Your task to perform on an android device: turn on the 12-hour format for clock Image 0: 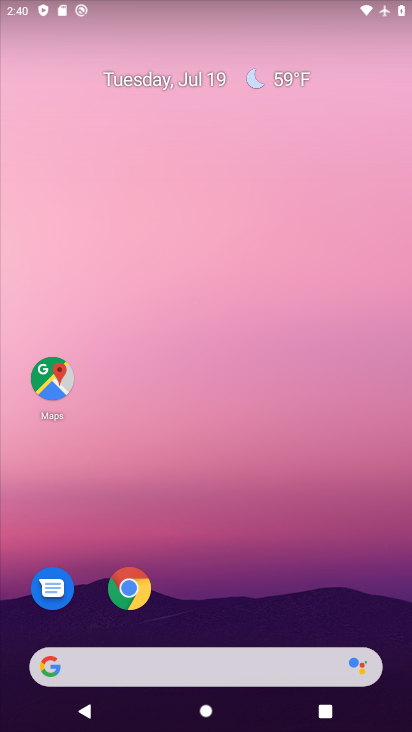
Step 0: press home button
Your task to perform on an android device: turn on the 12-hour format for clock Image 1: 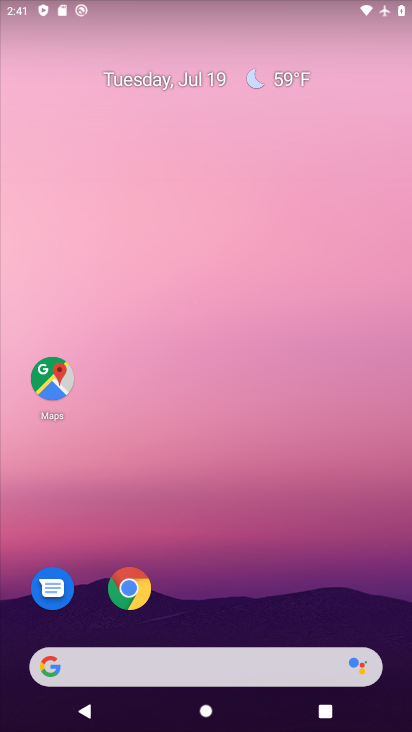
Step 1: drag from (213, 616) to (286, 106)
Your task to perform on an android device: turn on the 12-hour format for clock Image 2: 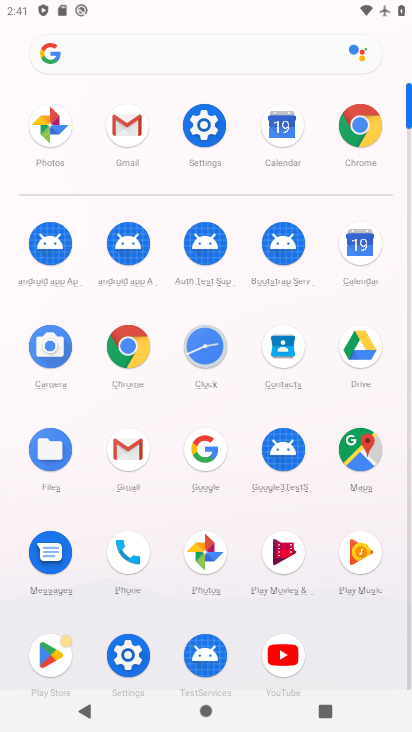
Step 2: click (125, 668)
Your task to perform on an android device: turn on the 12-hour format for clock Image 3: 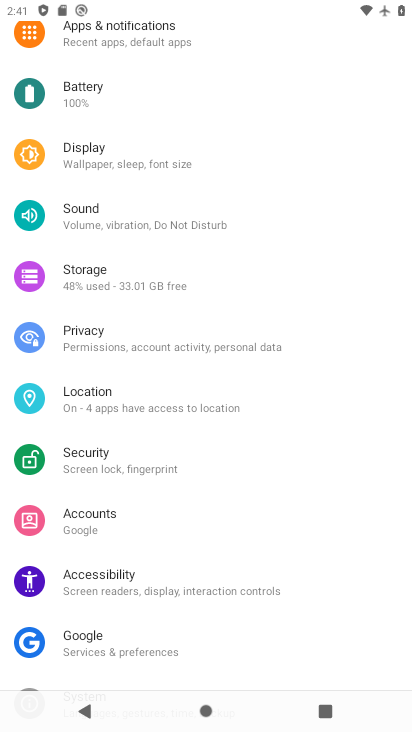
Step 3: drag from (281, 634) to (271, 245)
Your task to perform on an android device: turn on the 12-hour format for clock Image 4: 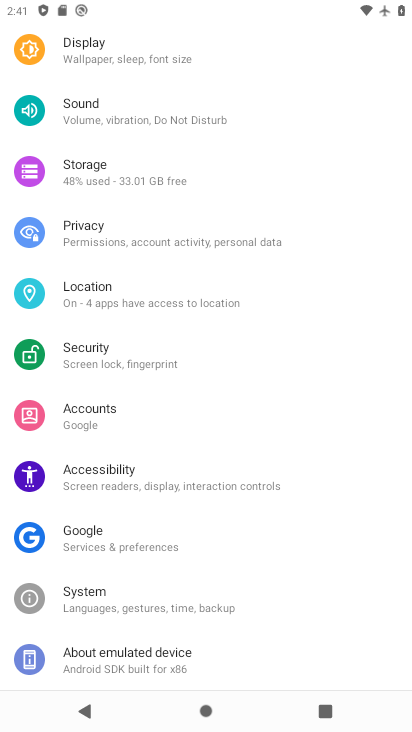
Step 4: click (105, 601)
Your task to perform on an android device: turn on the 12-hour format for clock Image 5: 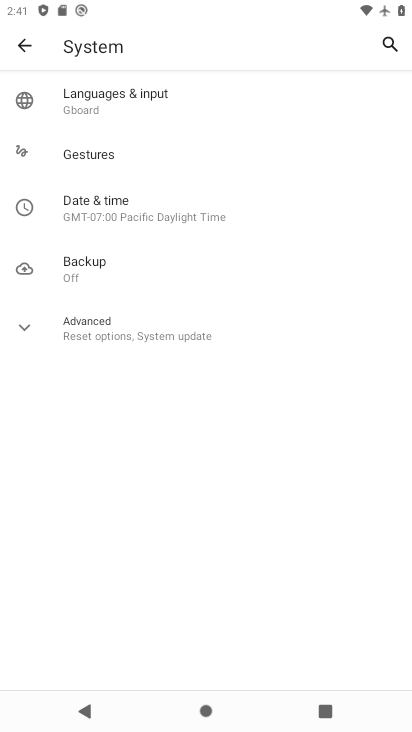
Step 5: click (101, 217)
Your task to perform on an android device: turn on the 12-hour format for clock Image 6: 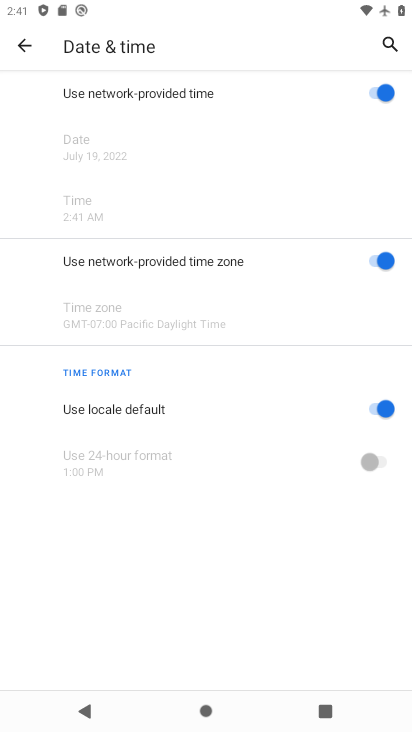
Step 6: click (384, 411)
Your task to perform on an android device: turn on the 12-hour format for clock Image 7: 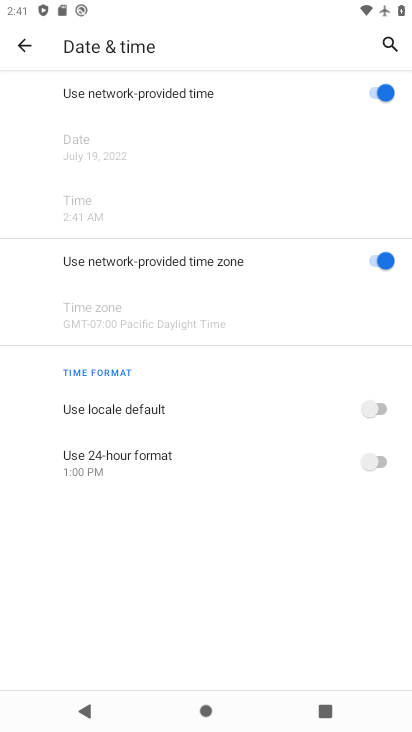
Step 7: task complete